Your task to perform on an android device: Is it going to rain this weekend? Image 0: 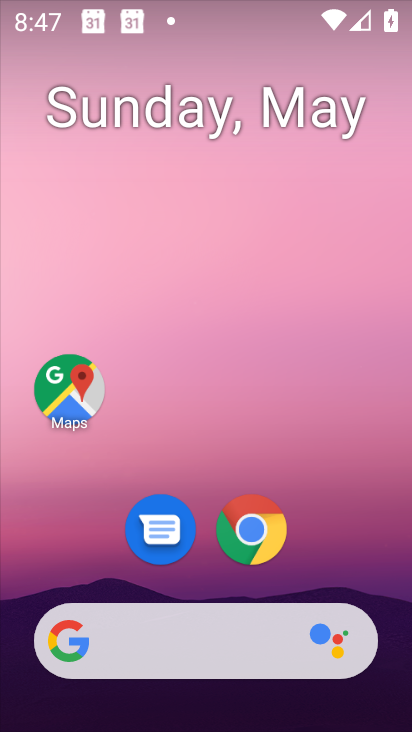
Step 0: click (269, 510)
Your task to perform on an android device: Is it going to rain this weekend? Image 1: 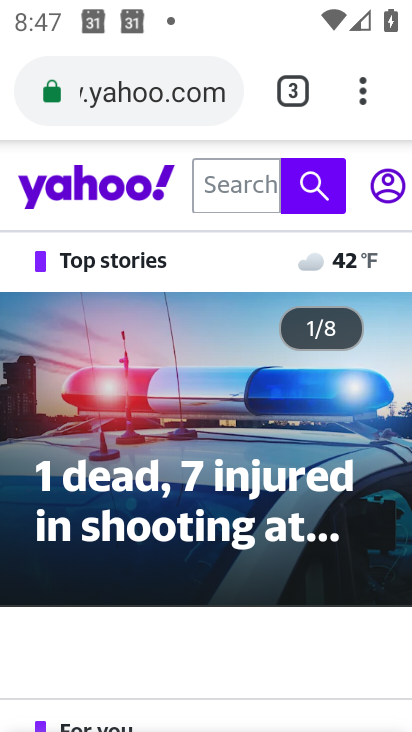
Step 1: click (379, 89)
Your task to perform on an android device: Is it going to rain this weekend? Image 2: 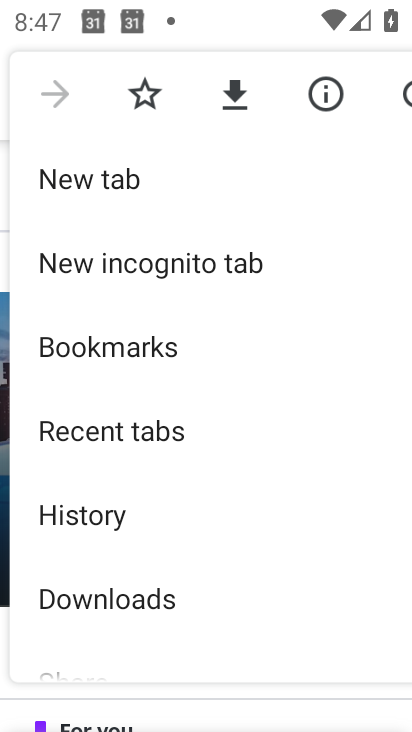
Step 2: press home button
Your task to perform on an android device: Is it going to rain this weekend? Image 3: 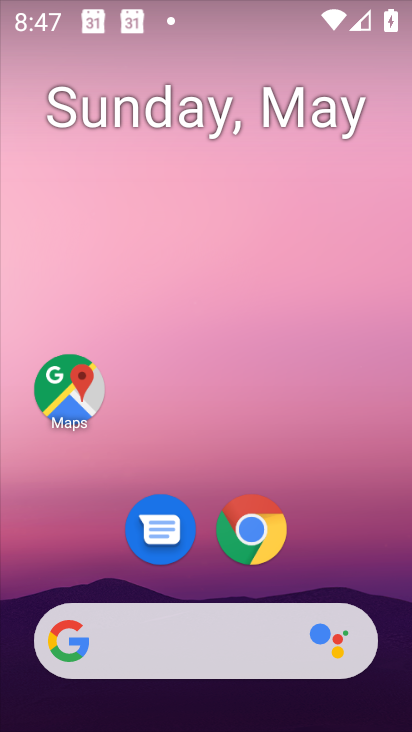
Step 3: drag from (381, 551) to (237, 3)
Your task to perform on an android device: Is it going to rain this weekend? Image 4: 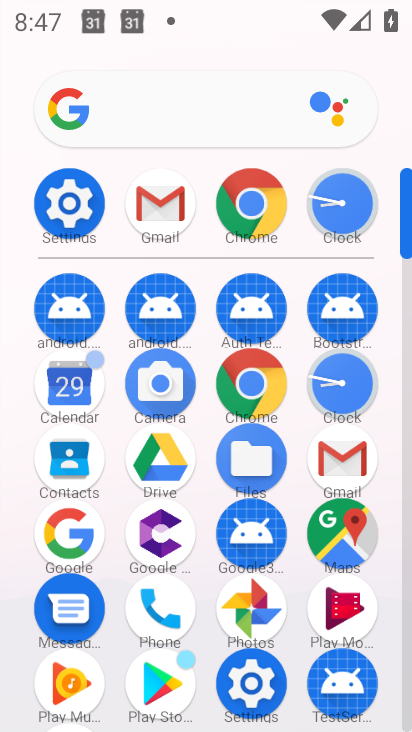
Step 4: click (76, 401)
Your task to perform on an android device: Is it going to rain this weekend? Image 5: 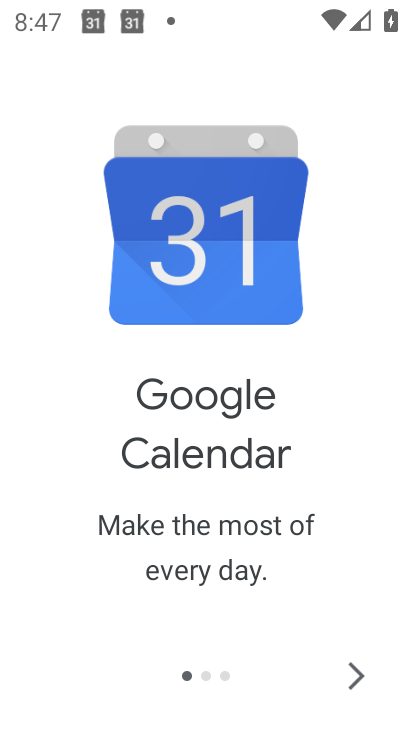
Step 5: click (376, 668)
Your task to perform on an android device: Is it going to rain this weekend? Image 6: 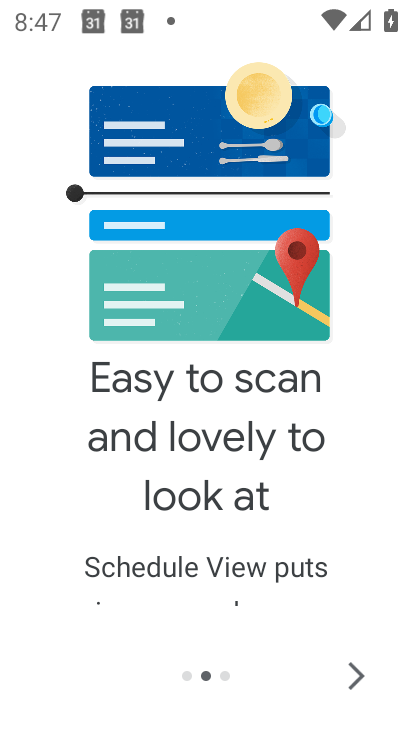
Step 6: click (376, 668)
Your task to perform on an android device: Is it going to rain this weekend? Image 7: 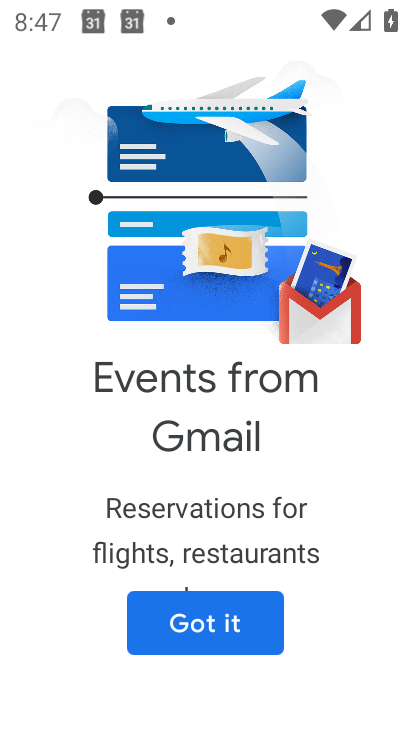
Step 7: click (376, 668)
Your task to perform on an android device: Is it going to rain this weekend? Image 8: 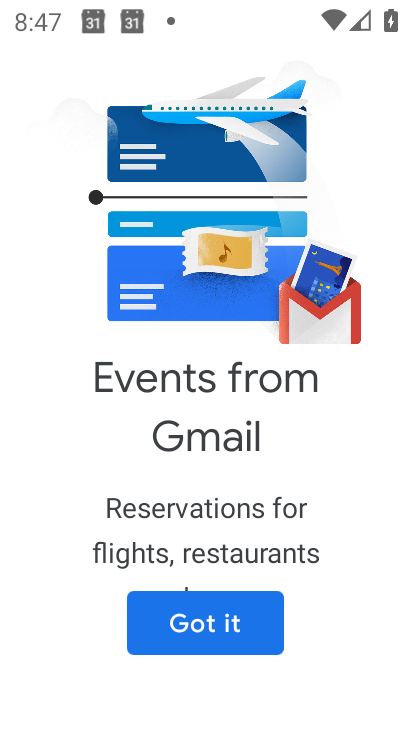
Step 8: click (376, 668)
Your task to perform on an android device: Is it going to rain this weekend? Image 9: 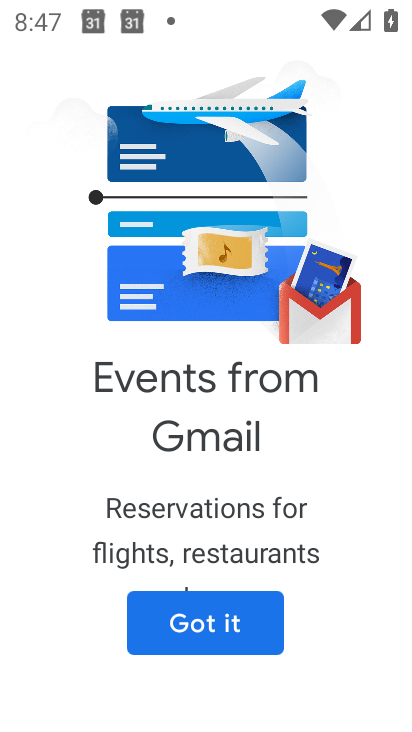
Step 9: click (220, 614)
Your task to perform on an android device: Is it going to rain this weekend? Image 10: 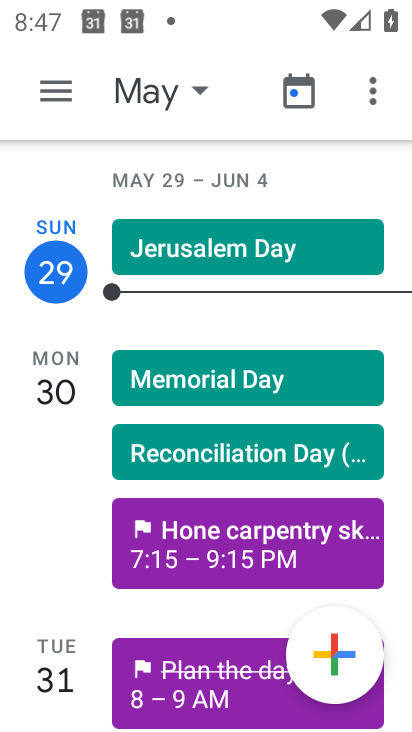
Step 10: task complete